Your task to perform on an android device: open app "Expedia: Hotels, Flights & Car" (install if not already installed) and go to login screen Image 0: 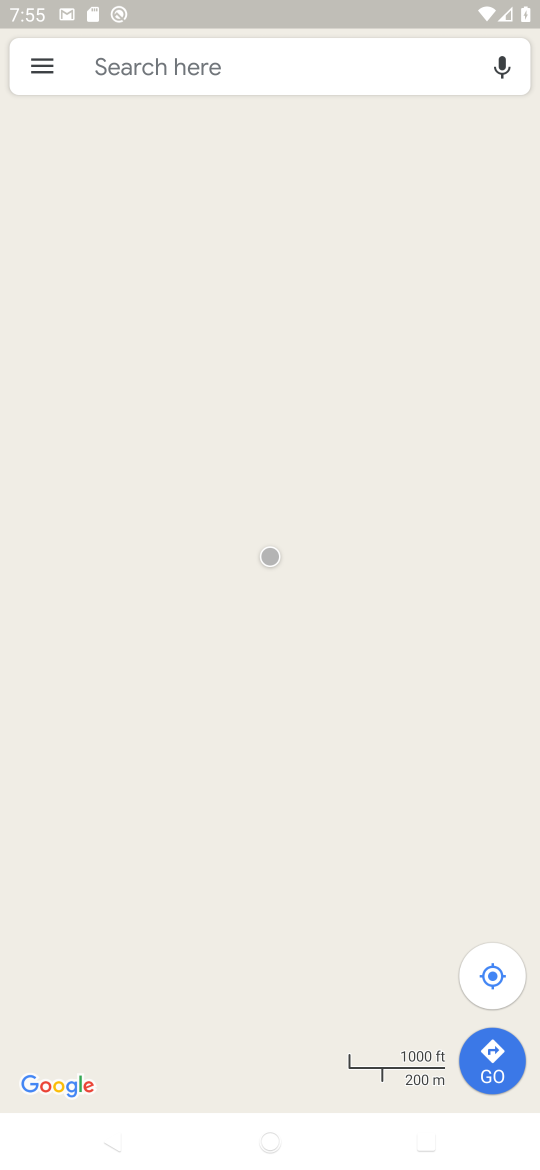
Step 0: press home button
Your task to perform on an android device: open app "Expedia: Hotels, Flights & Car" (install if not already installed) and go to login screen Image 1: 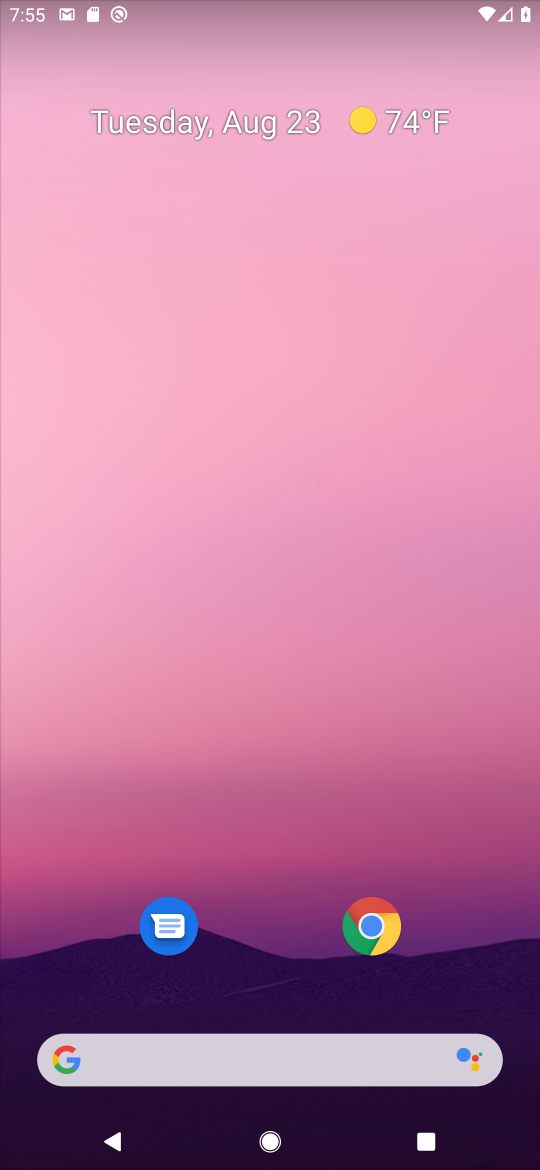
Step 1: drag from (245, 962) to (215, 10)
Your task to perform on an android device: open app "Expedia: Hotels, Flights & Car" (install if not already installed) and go to login screen Image 2: 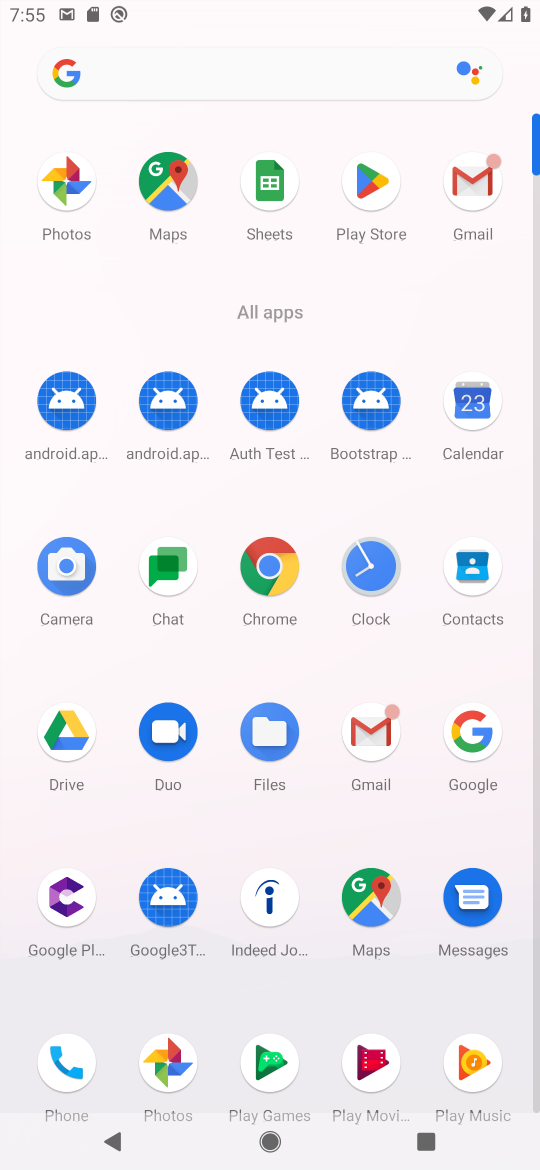
Step 2: click (368, 216)
Your task to perform on an android device: open app "Expedia: Hotels, Flights & Car" (install if not already installed) and go to login screen Image 3: 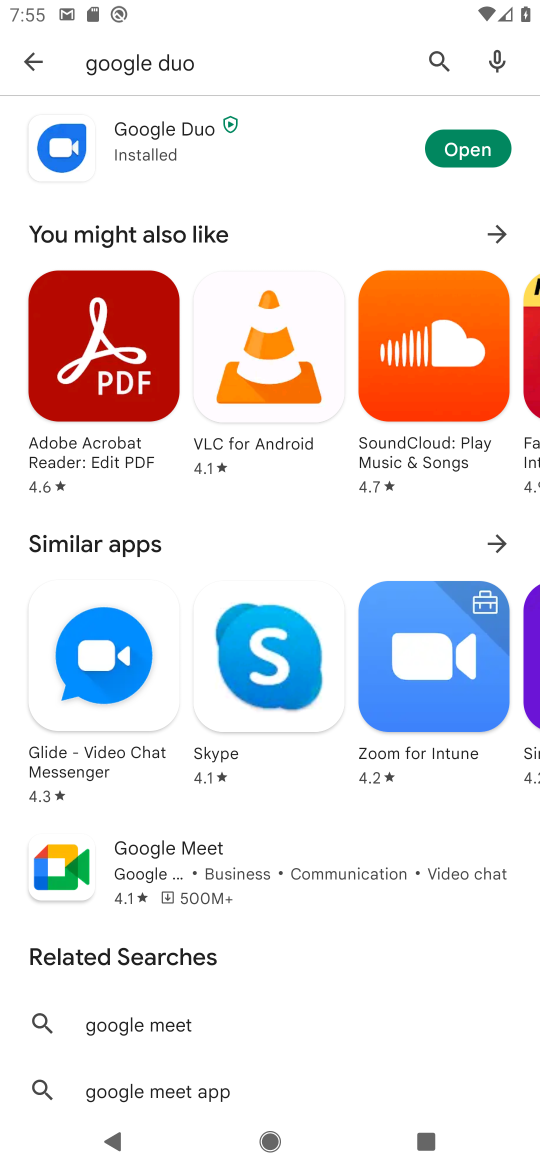
Step 3: click (186, 67)
Your task to perform on an android device: open app "Expedia: Hotels, Flights & Car" (install if not already installed) and go to login screen Image 4: 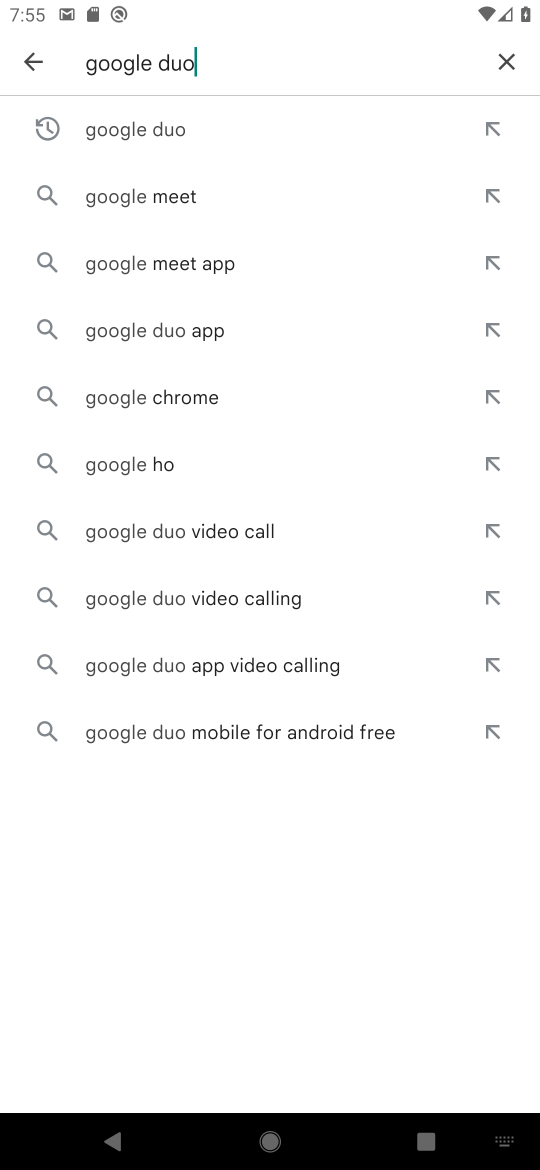
Step 4: click (509, 47)
Your task to perform on an android device: open app "Expedia: Hotels, Flights & Car" (install if not already installed) and go to login screen Image 5: 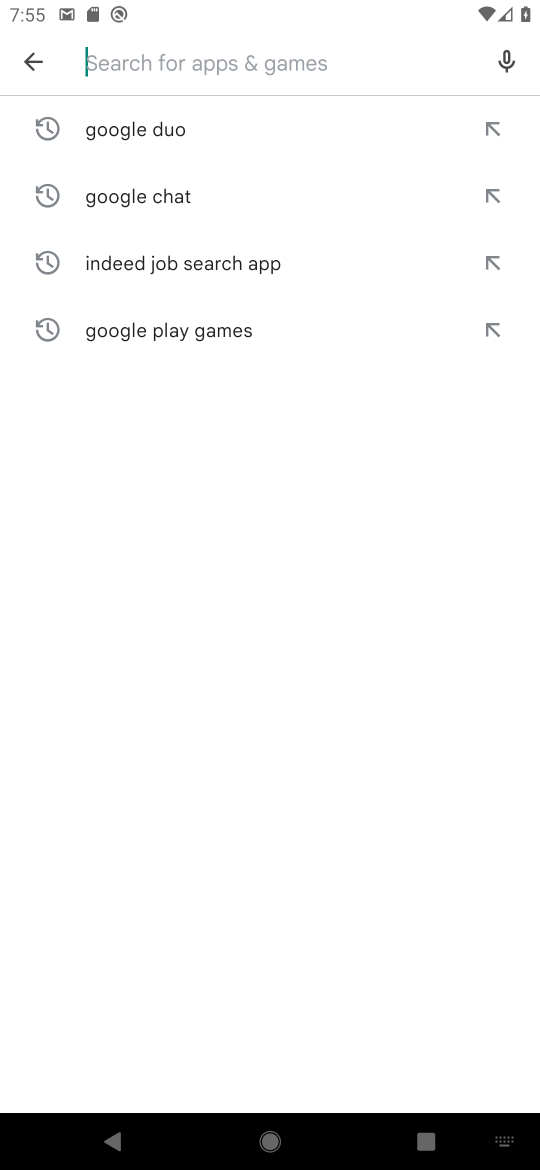
Step 5: type "Expedia"
Your task to perform on an android device: open app "Expedia: Hotels, Flights & Car" (install if not already installed) and go to login screen Image 6: 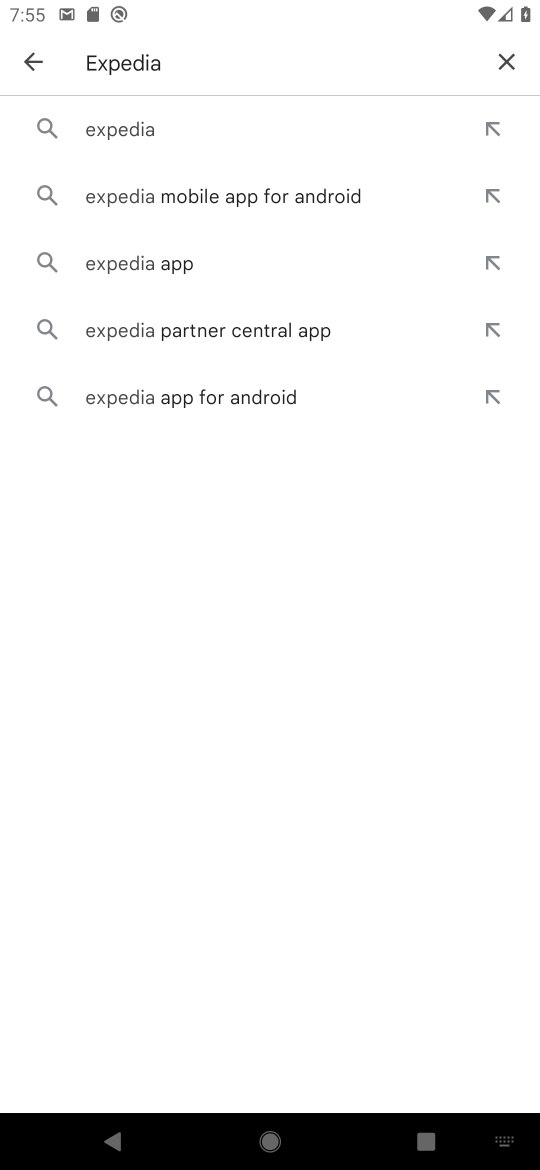
Step 6: click (165, 131)
Your task to perform on an android device: open app "Expedia: Hotels, Flights & Car" (install if not already installed) and go to login screen Image 7: 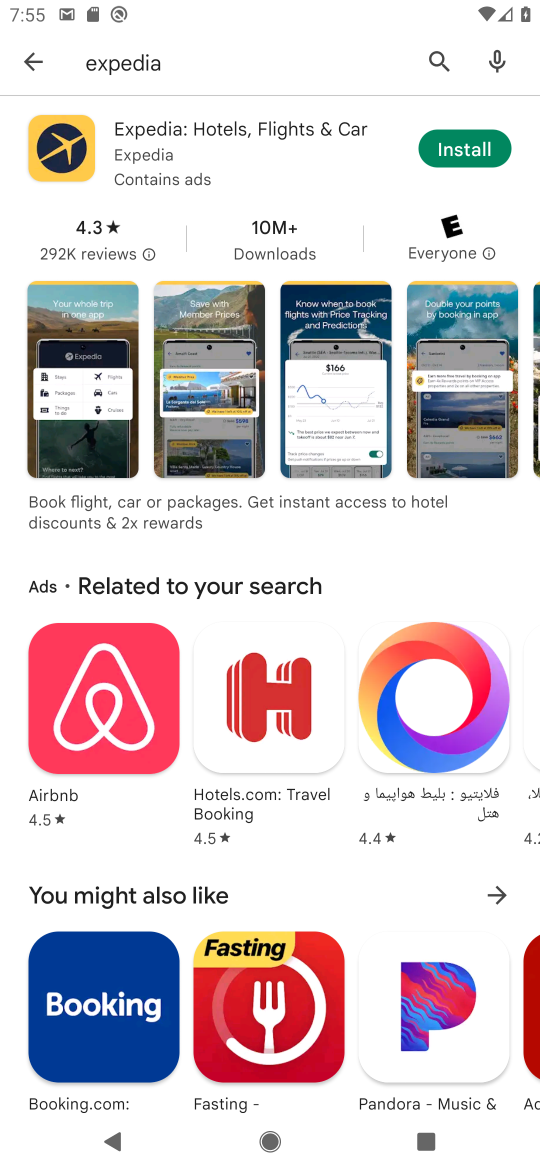
Step 7: click (491, 152)
Your task to perform on an android device: open app "Expedia: Hotels, Flights & Car" (install if not already installed) and go to login screen Image 8: 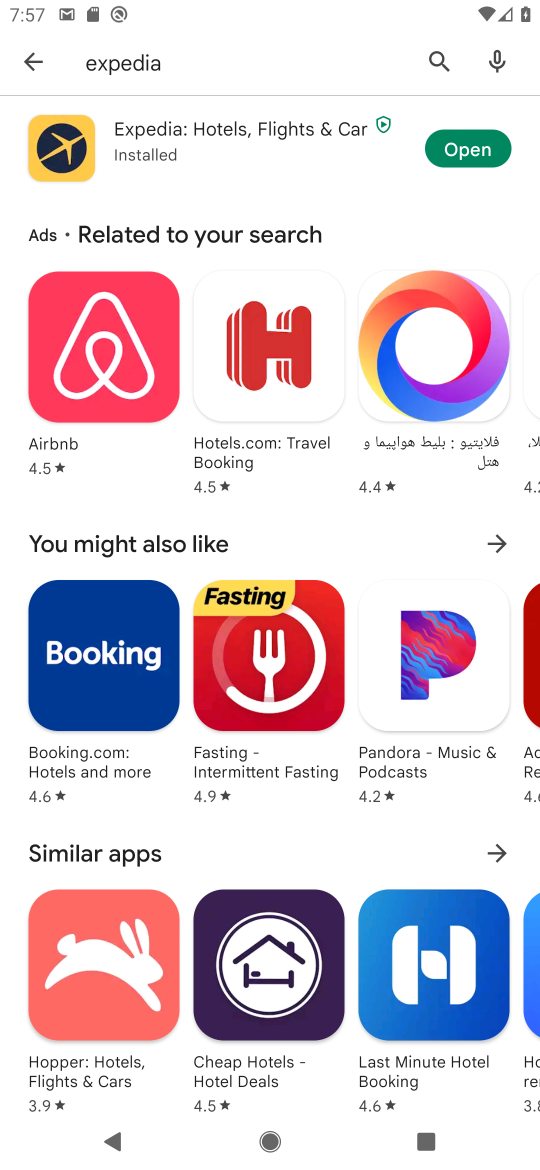
Step 8: click (461, 146)
Your task to perform on an android device: open app "Expedia: Hotels, Flights & Car" (install if not already installed) and go to login screen Image 9: 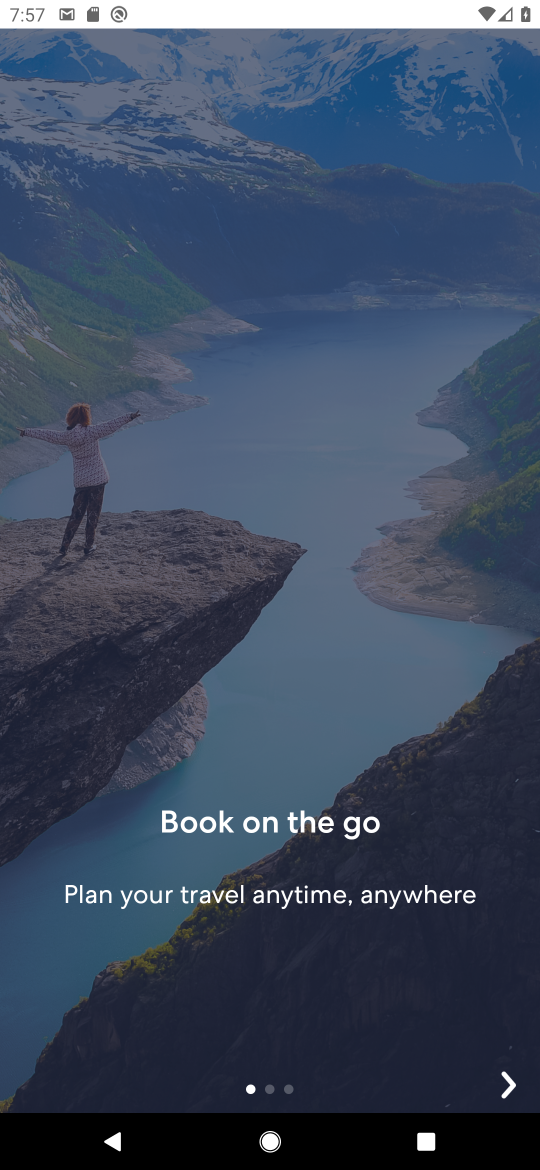
Step 9: click (508, 1079)
Your task to perform on an android device: open app "Expedia: Hotels, Flights & Car" (install if not already installed) and go to login screen Image 10: 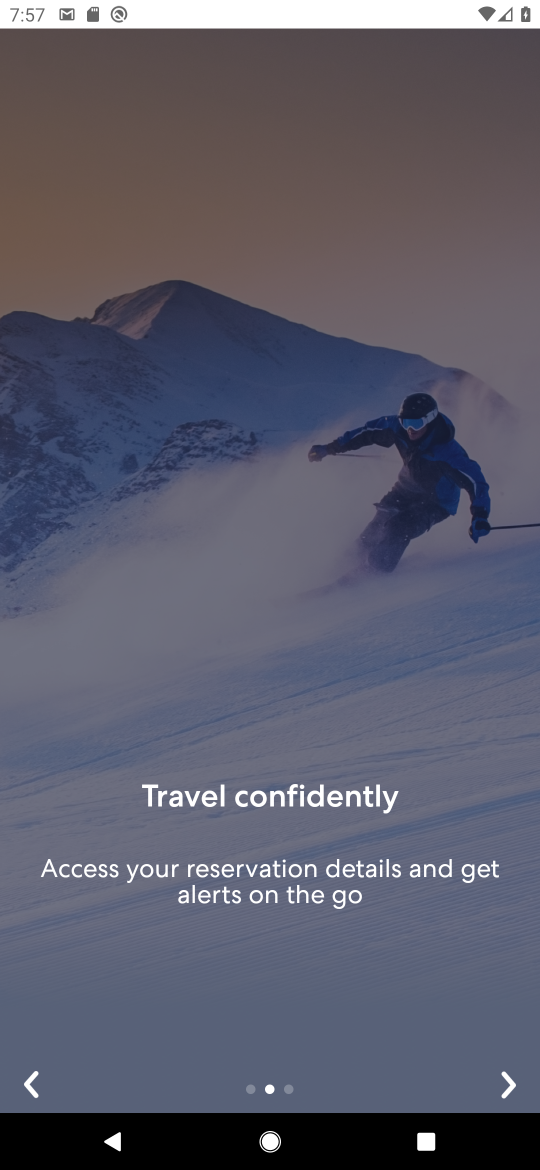
Step 10: click (511, 1088)
Your task to perform on an android device: open app "Expedia: Hotels, Flights & Car" (install if not already installed) and go to login screen Image 11: 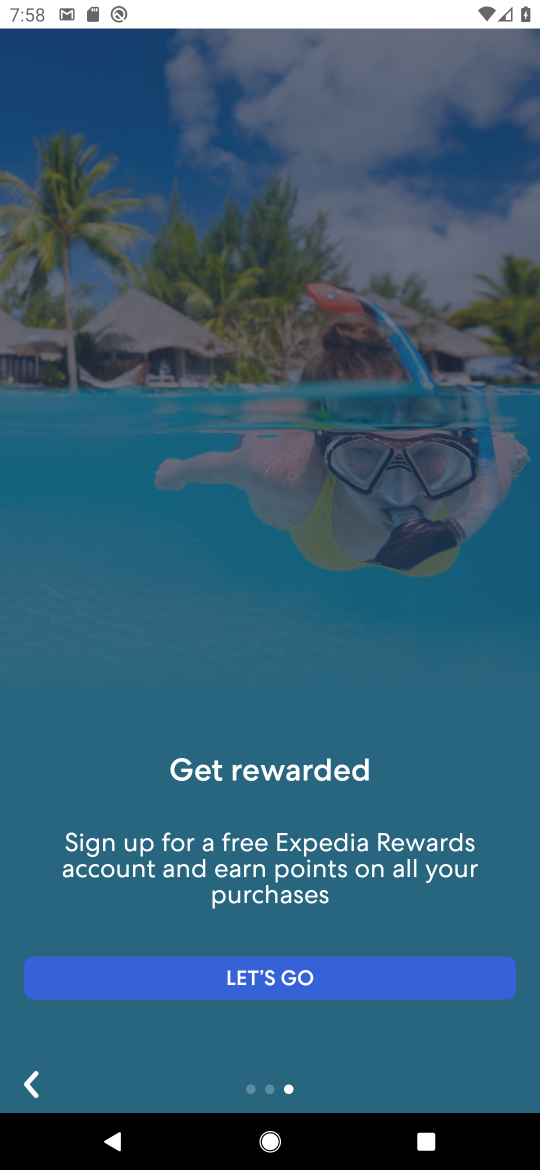
Step 11: click (295, 964)
Your task to perform on an android device: open app "Expedia: Hotels, Flights & Car" (install if not already installed) and go to login screen Image 12: 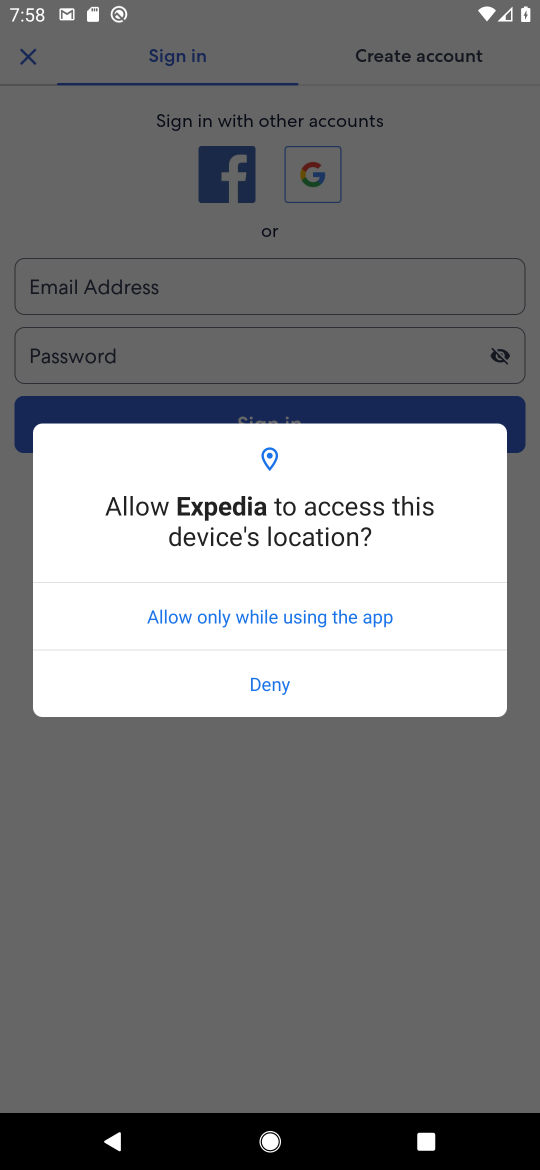
Step 12: click (311, 611)
Your task to perform on an android device: open app "Expedia: Hotels, Flights & Car" (install if not already installed) and go to login screen Image 13: 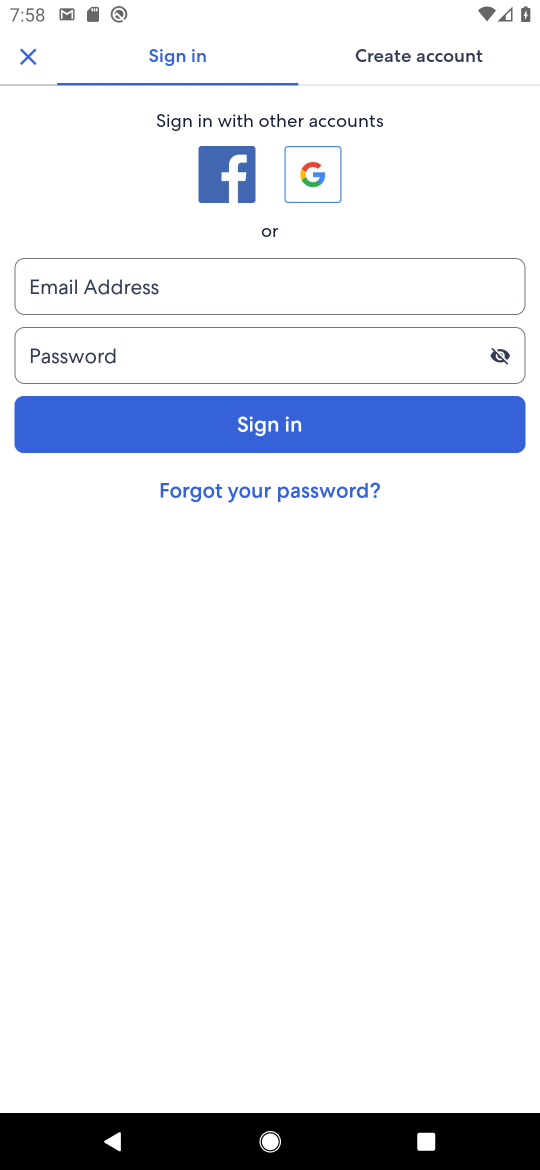
Step 13: task complete